Your task to perform on an android device: Open ESPN.com Image 0: 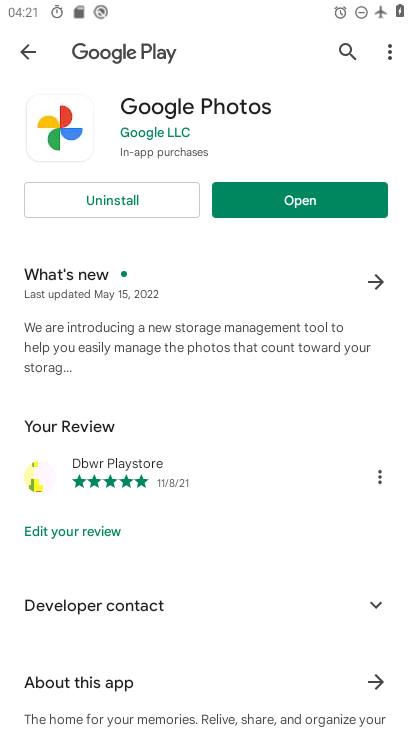
Step 0: press home button
Your task to perform on an android device: Open ESPN.com Image 1: 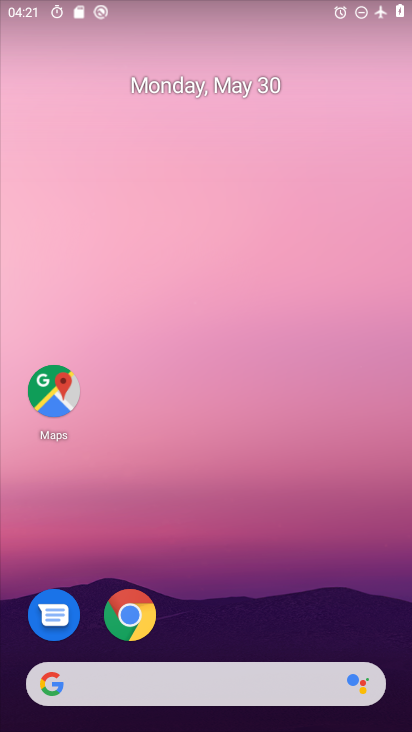
Step 1: click (127, 617)
Your task to perform on an android device: Open ESPN.com Image 2: 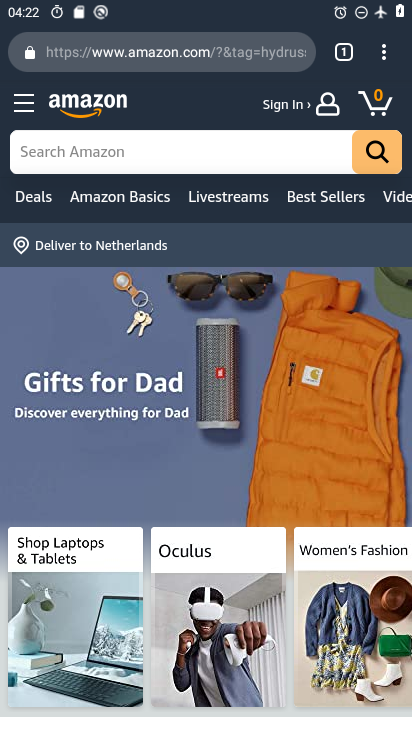
Step 2: click (223, 49)
Your task to perform on an android device: Open ESPN.com Image 3: 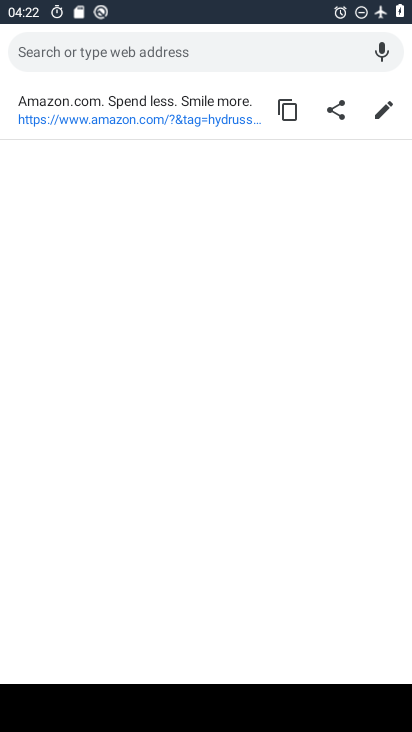
Step 3: type "ESPN.com"
Your task to perform on an android device: Open ESPN.com Image 4: 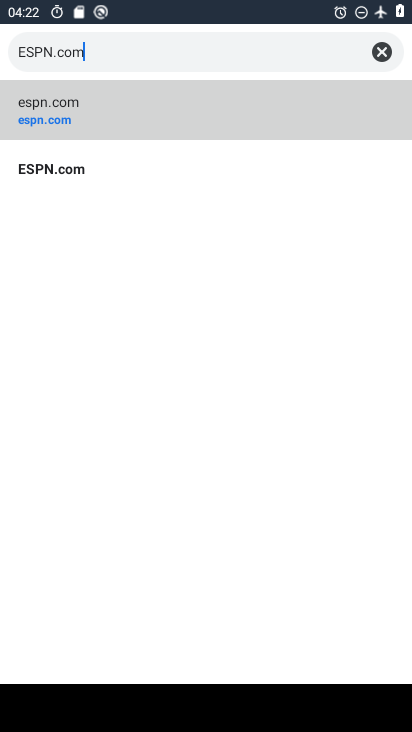
Step 4: type ""
Your task to perform on an android device: Open ESPN.com Image 5: 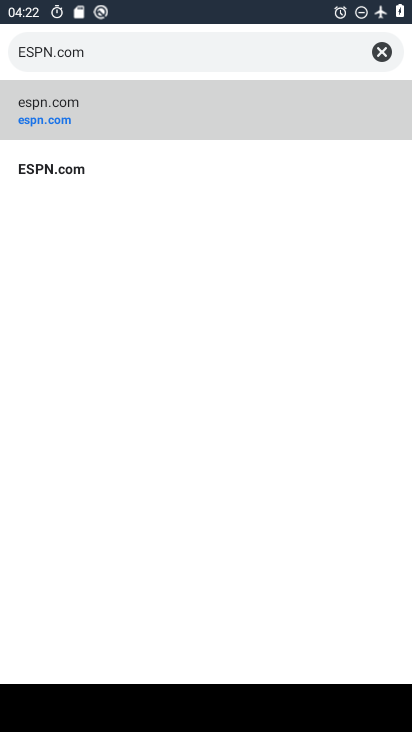
Step 5: click (46, 168)
Your task to perform on an android device: Open ESPN.com Image 6: 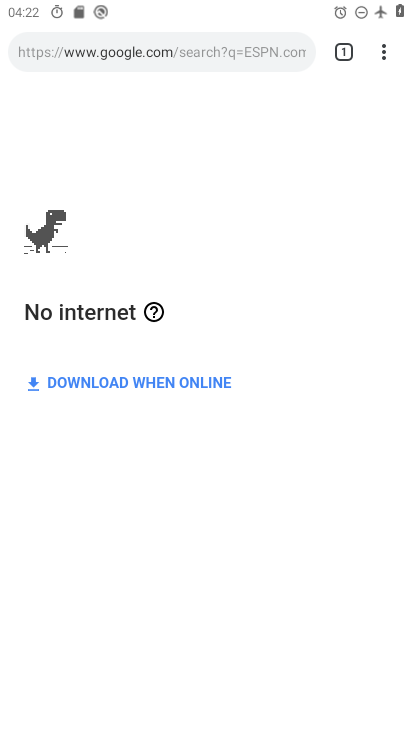
Step 6: task complete